Your task to perform on an android device: Search for seafood restaurants on Google Maps Image 0: 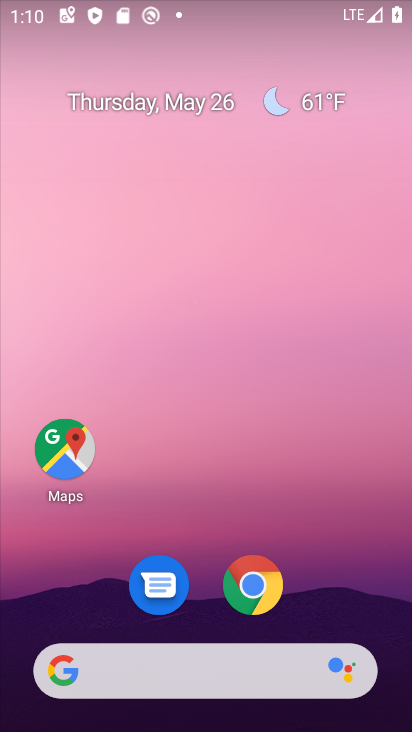
Step 0: click (66, 445)
Your task to perform on an android device: Search for seafood restaurants on Google Maps Image 1: 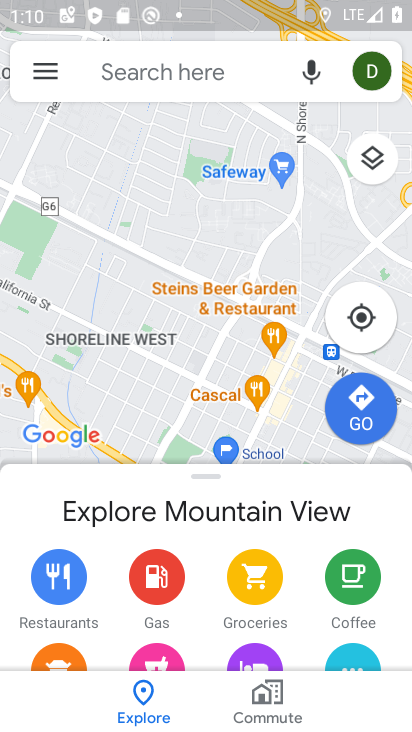
Step 1: click (244, 82)
Your task to perform on an android device: Search for seafood restaurants on Google Maps Image 2: 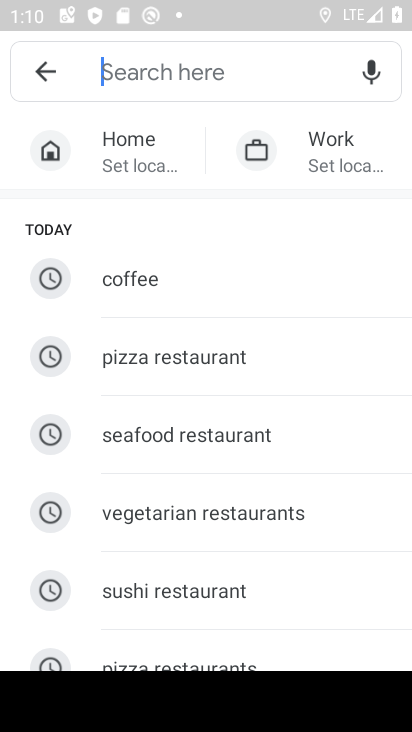
Step 2: click (211, 430)
Your task to perform on an android device: Search for seafood restaurants on Google Maps Image 3: 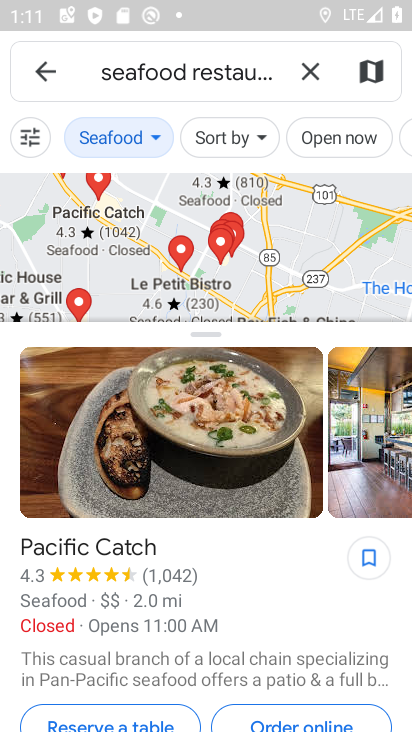
Step 3: task complete